Your task to perform on an android device: Go to wifi settings Image 0: 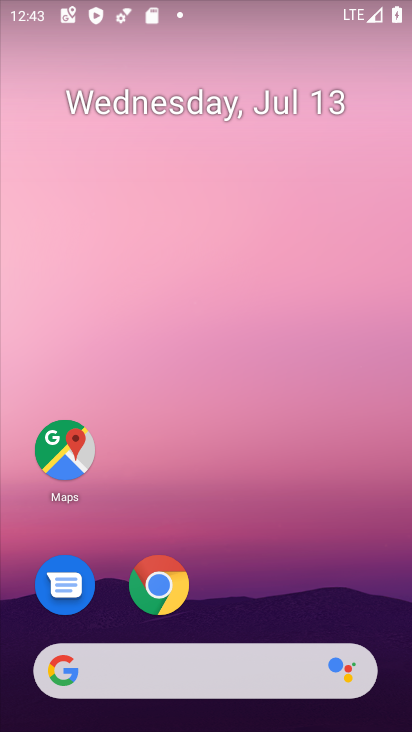
Step 0: drag from (180, 88) to (180, 20)
Your task to perform on an android device: Go to wifi settings Image 1: 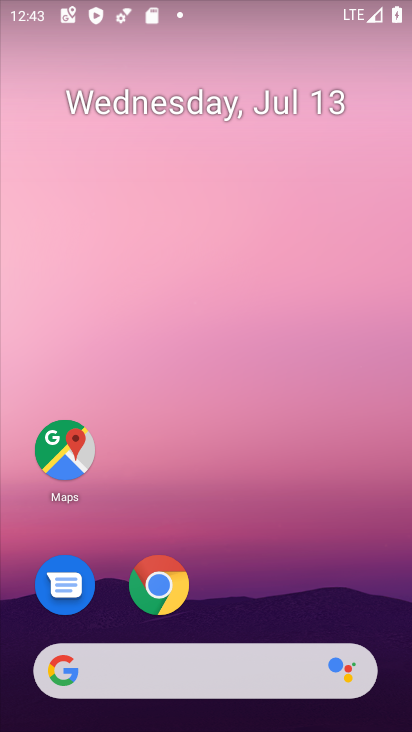
Step 1: drag from (212, 586) to (227, 186)
Your task to perform on an android device: Go to wifi settings Image 2: 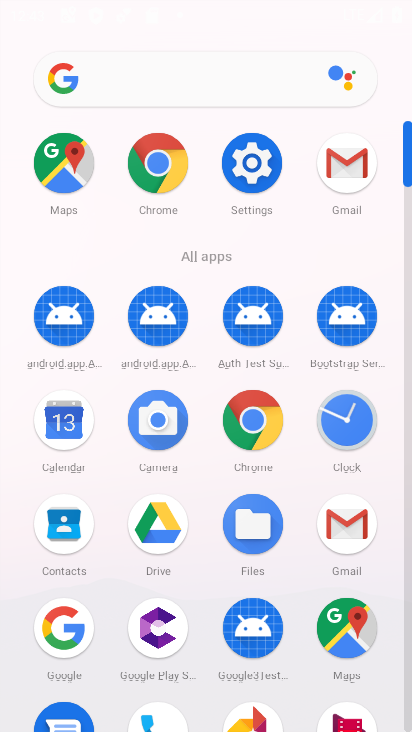
Step 2: click (242, 179)
Your task to perform on an android device: Go to wifi settings Image 3: 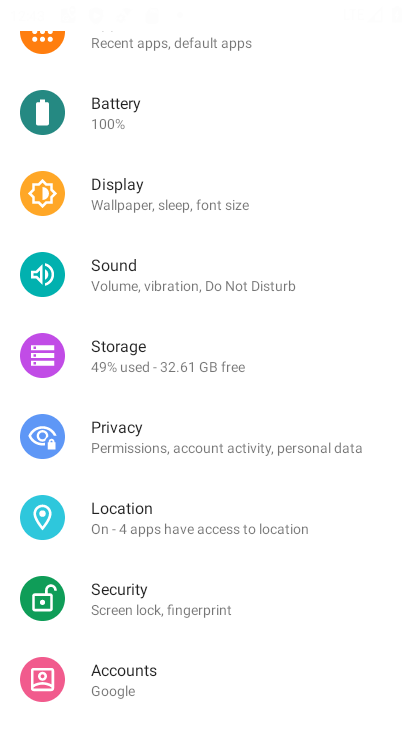
Step 3: drag from (215, 249) to (240, 624)
Your task to perform on an android device: Go to wifi settings Image 4: 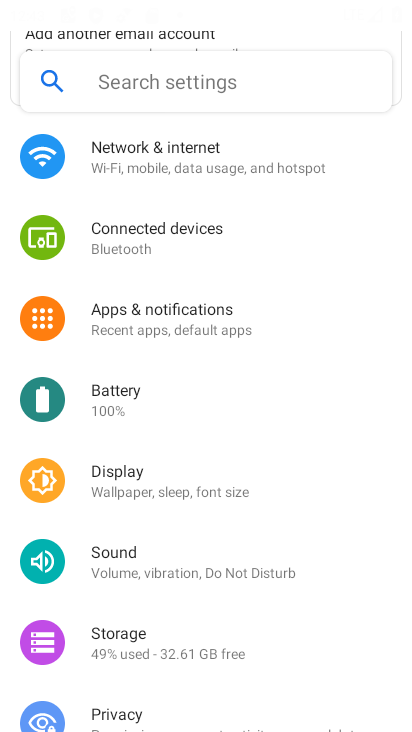
Step 4: click (129, 160)
Your task to perform on an android device: Go to wifi settings Image 5: 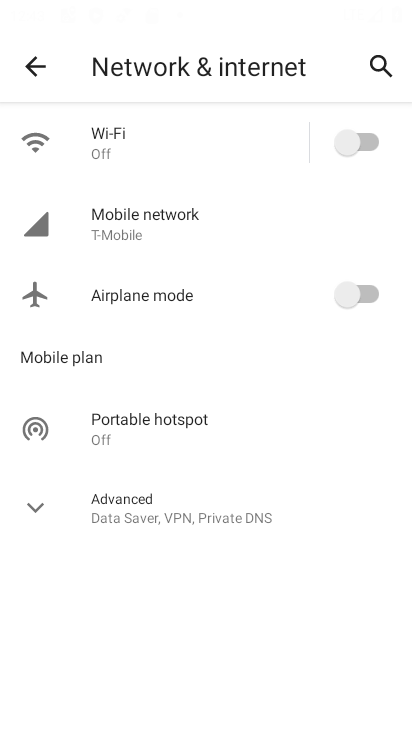
Step 5: click (112, 160)
Your task to perform on an android device: Go to wifi settings Image 6: 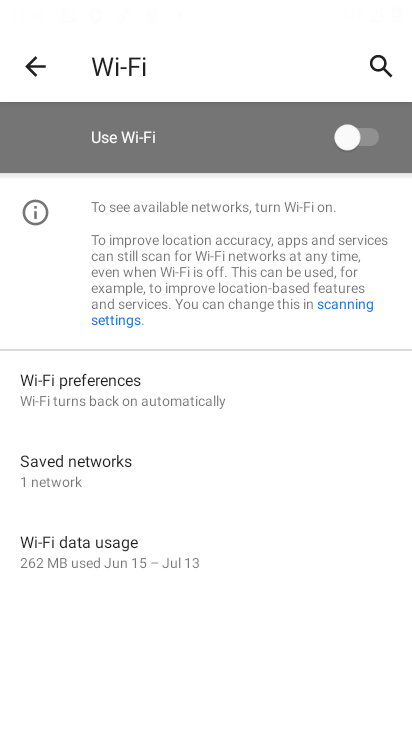
Step 6: task complete